Your task to perform on an android device: install app "Google Play Music" Image 0: 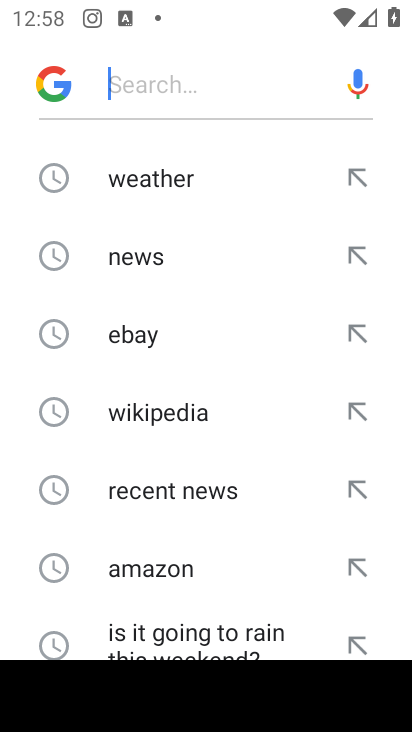
Step 0: press back button
Your task to perform on an android device: install app "Google Play Music" Image 1: 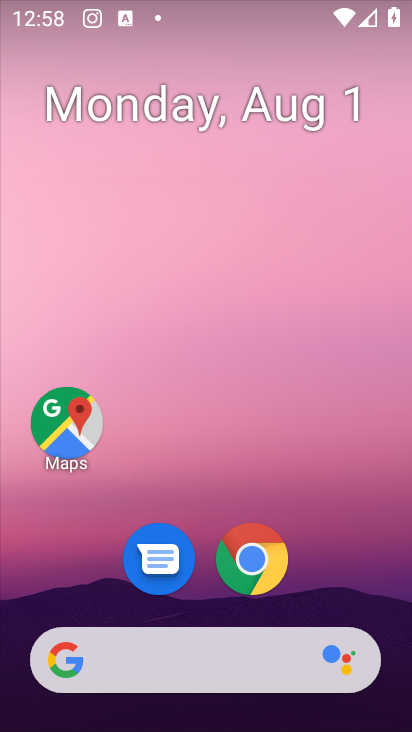
Step 1: drag from (82, 574) to (235, 2)
Your task to perform on an android device: install app "Google Play Music" Image 2: 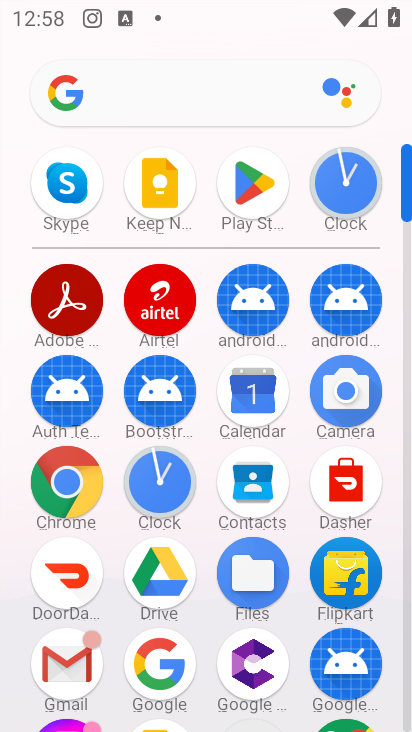
Step 2: click (249, 166)
Your task to perform on an android device: install app "Google Play Music" Image 3: 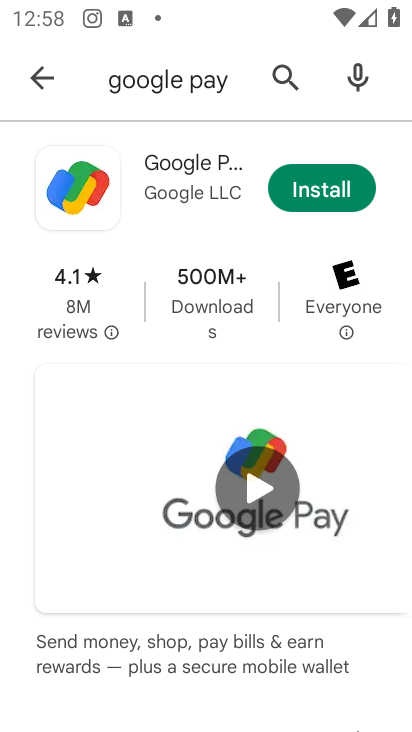
Step 3: click (270, 73)
Your task to perform on an android device: install app "Google Play Music" Image 4: 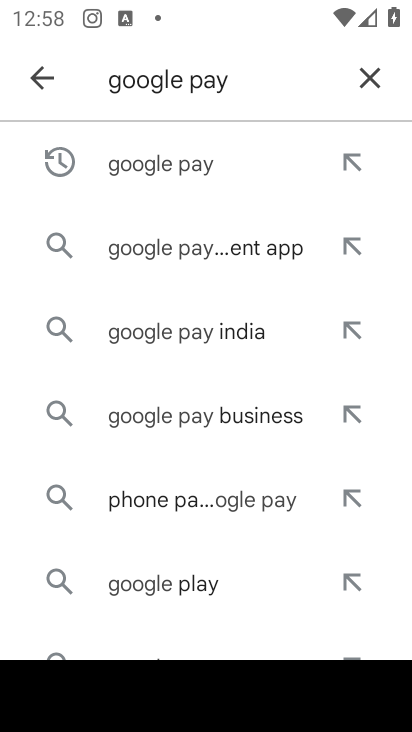
Step 4: click (365, 72)
Your task to perform on an android device: install app "Google Play Music" Image 5: 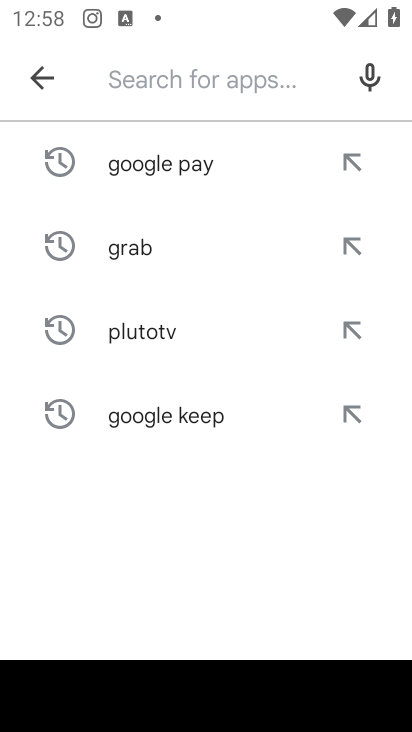
Step 5: click (192, 74)
Your task to perform on an android device: install app "Google Play Music" Image 6: 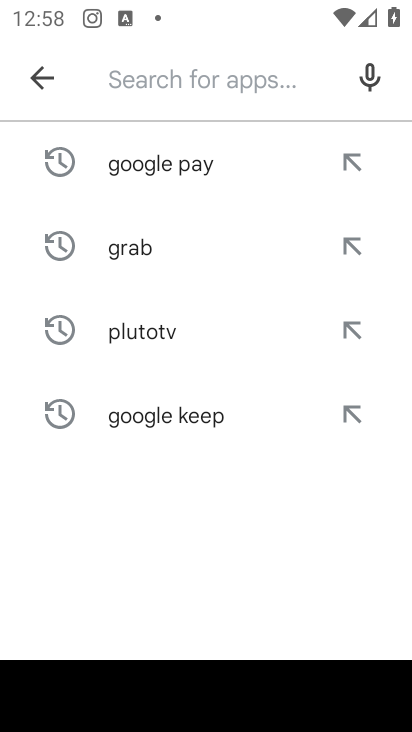
Step 6: type "google play music"
Your task to perform on an android device: install app "Google Play Music" Image 7: 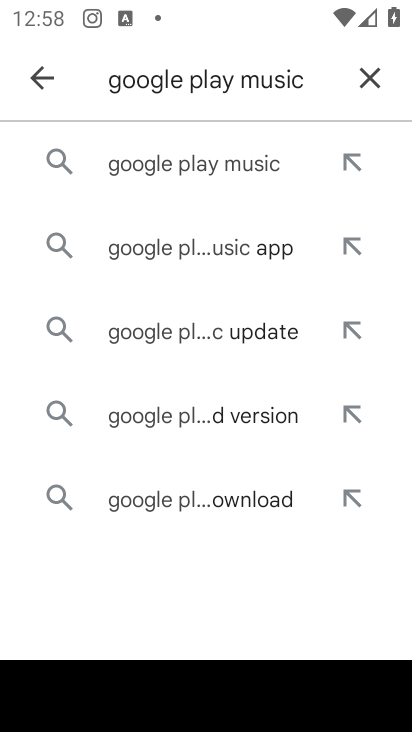
Step 7: click (198, 164)
Your task to perform on an android device: install app "Google Play Music" Image 8: 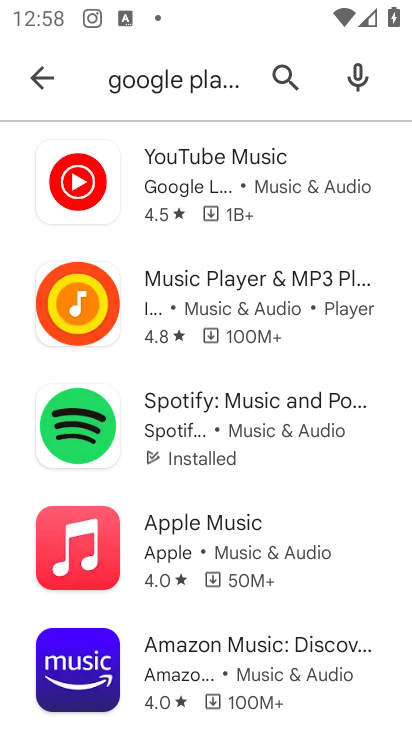
Step 8: click (195, 165)
Your task to perform on an android device: install app "Google Play Music" Image 9: 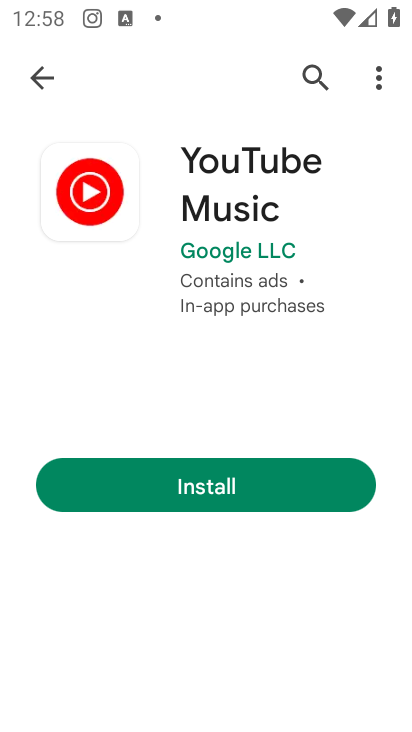
Step 9: click (195, 165)
Your task to perform on an android device: install app "Google Play Music" Image 10: 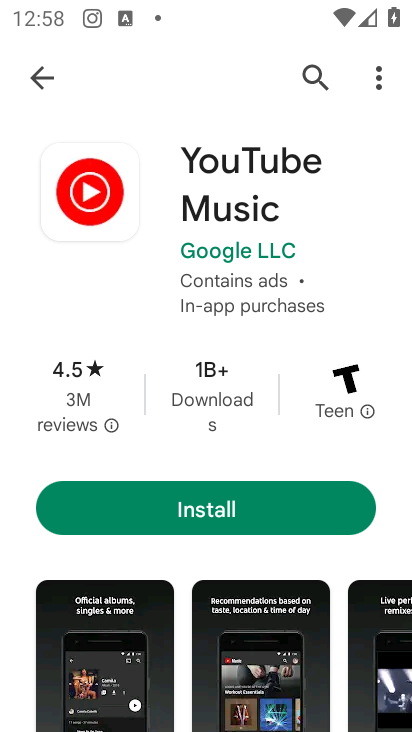
Step 10: click (194, 505)
Your task to perform on an android device: install app "Google Play Music" Image 11: 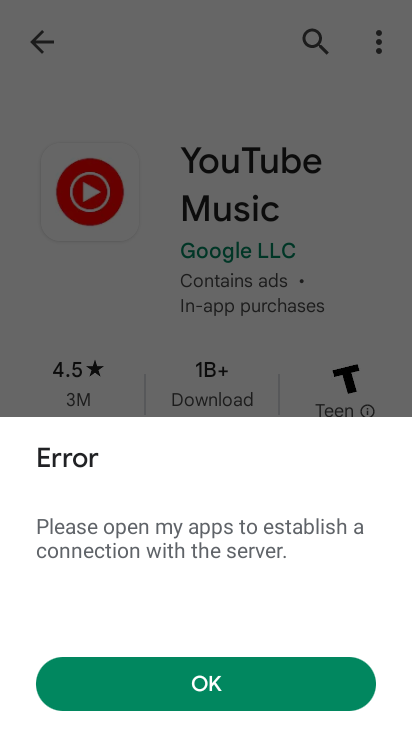
Step 11: task complete